Your task to perform on an android device: toggle translation in the chrome app Image 0: 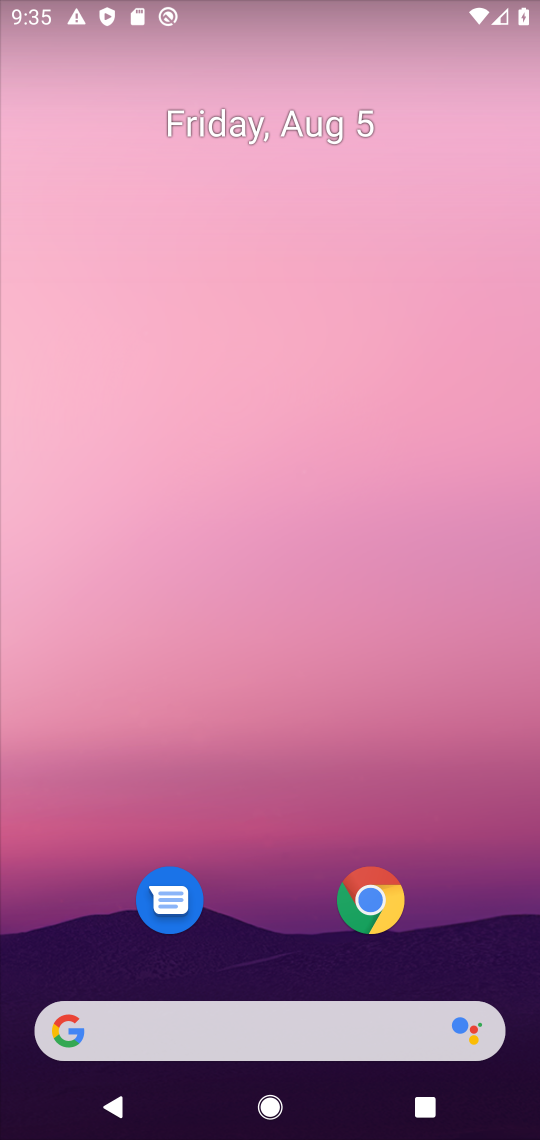
Step 0: drag from (439, 571) to (307, 157)
Your task to perform on an android device: toggle translation in the chrome app Image 1: 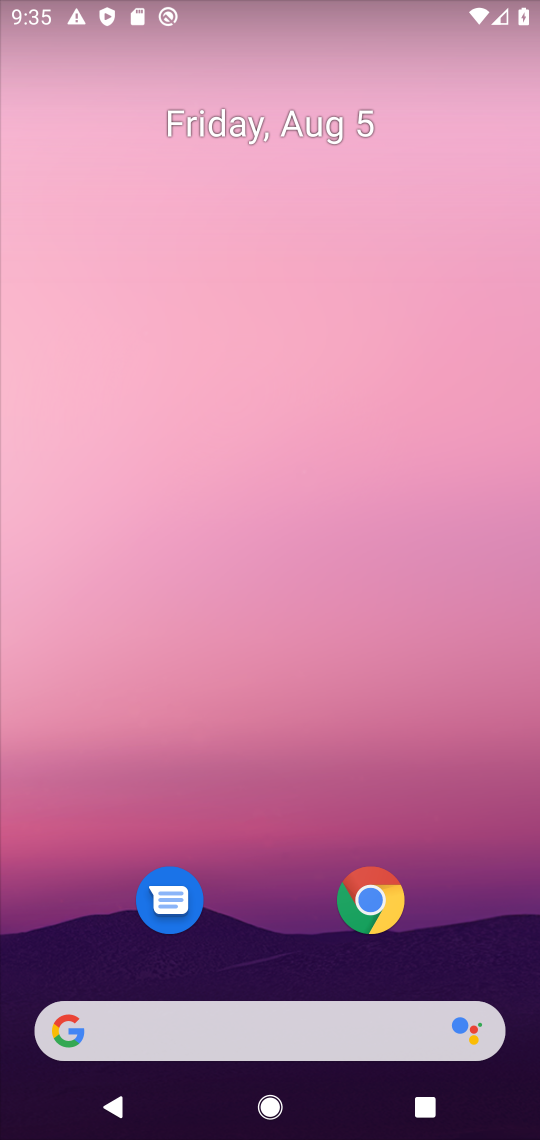
Step 1: drag from (499, 969) to (262, 154)
Your task to perform on an android device: toggle translation in the chrome app Image 2: 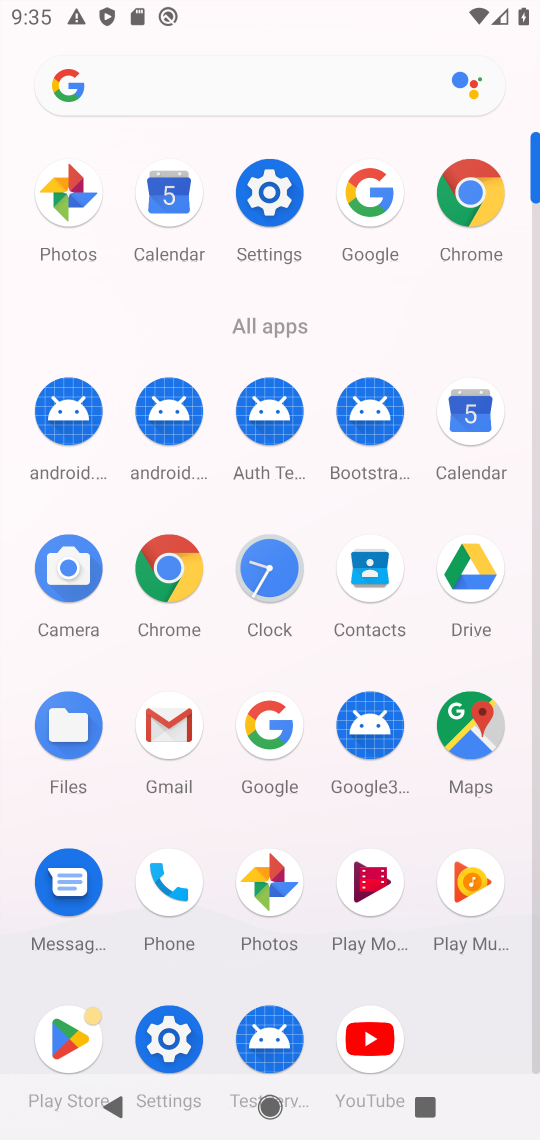
Step 2: click (487, 212)
Your task to perform on an android device: toggle translation in the chrome app Image 3: 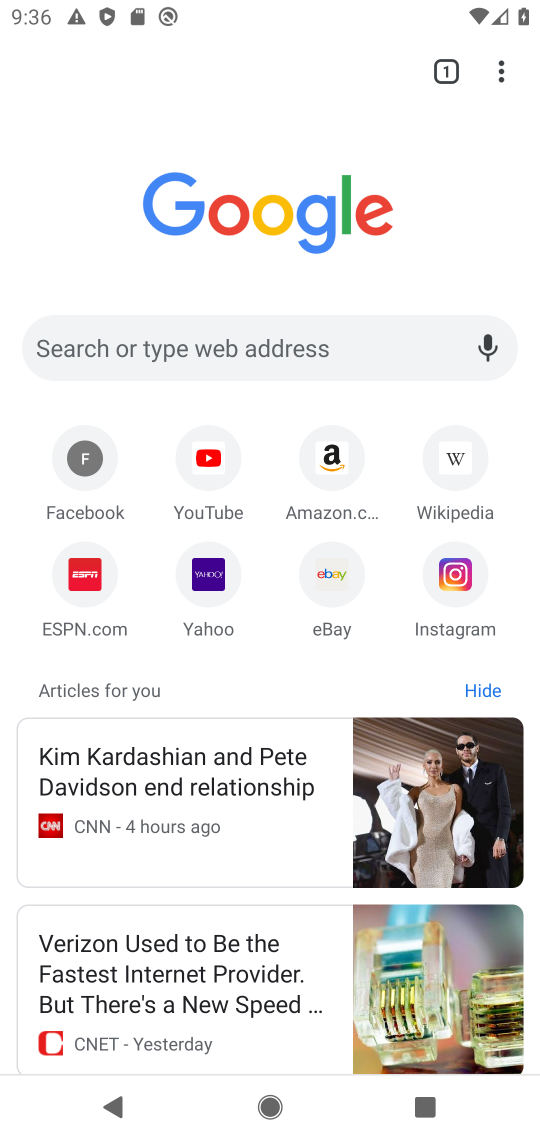
Step 3: click (513, 77)
Your task to perform on an android device: toggle translation in the chrome app Image 4: 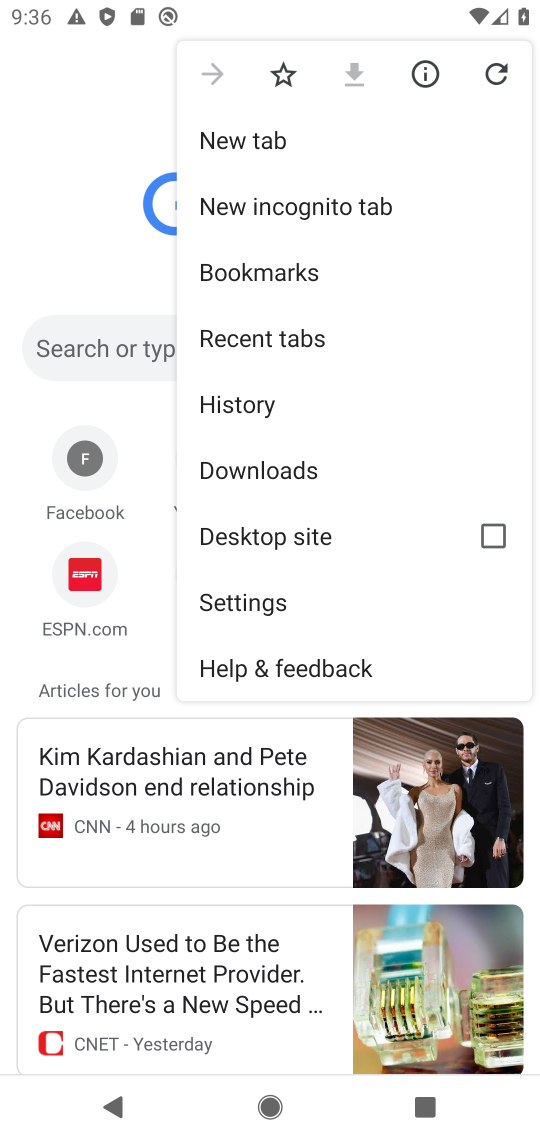
Step 4: click (282, 606)
Your task to perform on an android device: toggle translation in the chrome app Image 5: 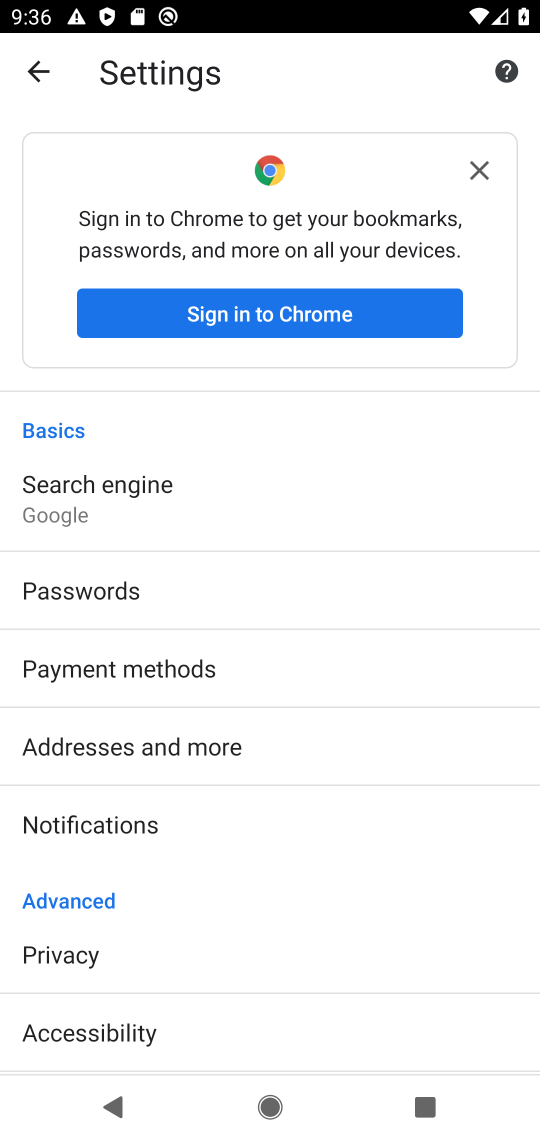
Step 5: drag from (245, 737) to (230, 377)
Your task to perform on an android device: toggle translation in the chrome app Image 6: 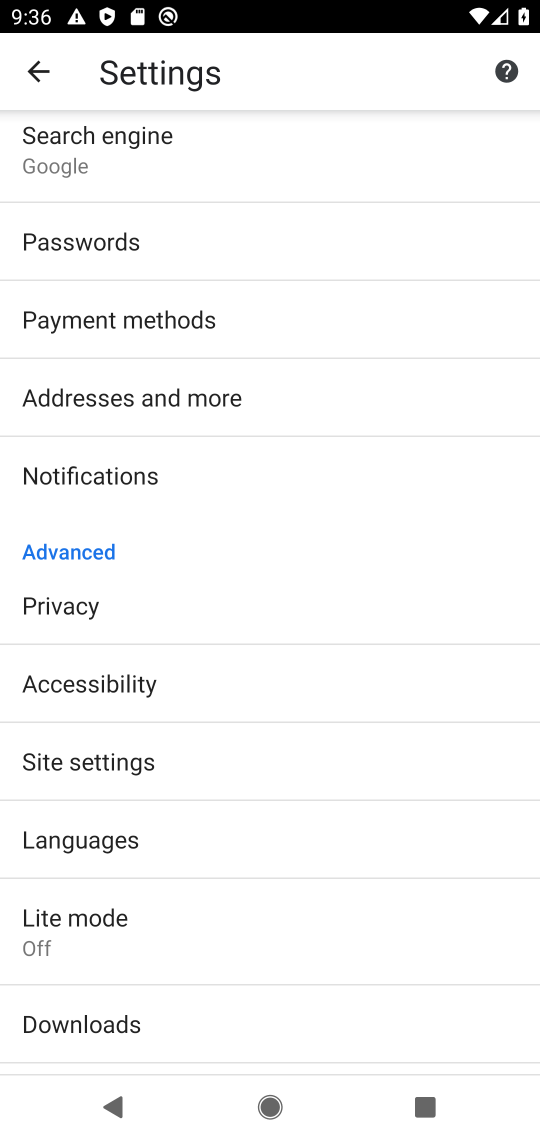
Step 6: click (166, 865)
Your task to perform on an android device: toggle translation in the chrome app Image 7: 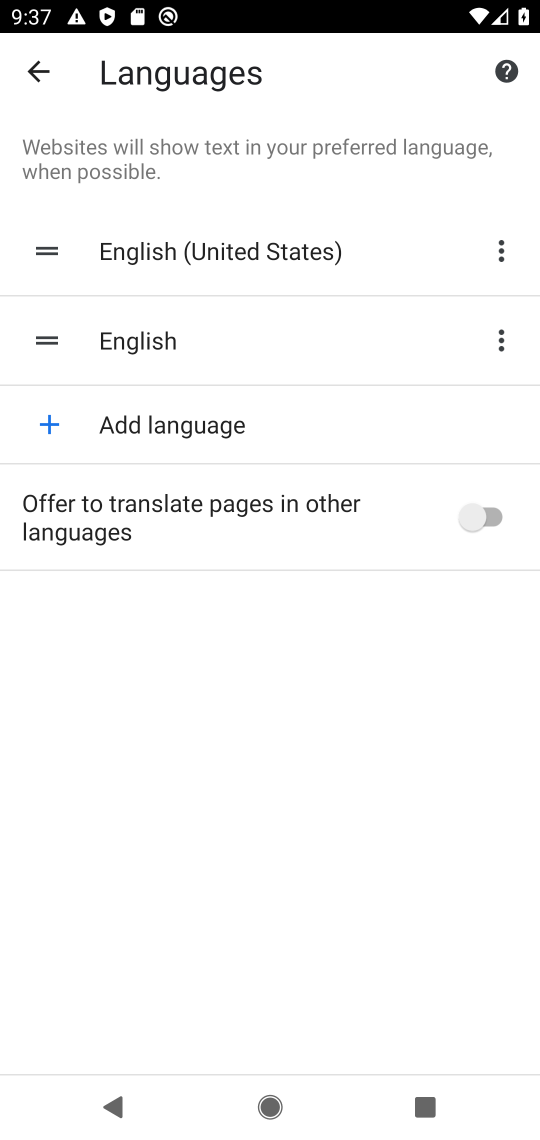
Step 7: click (499, 535)
Your task to perform on an android device: toggle translation in the chrome app Image 8: 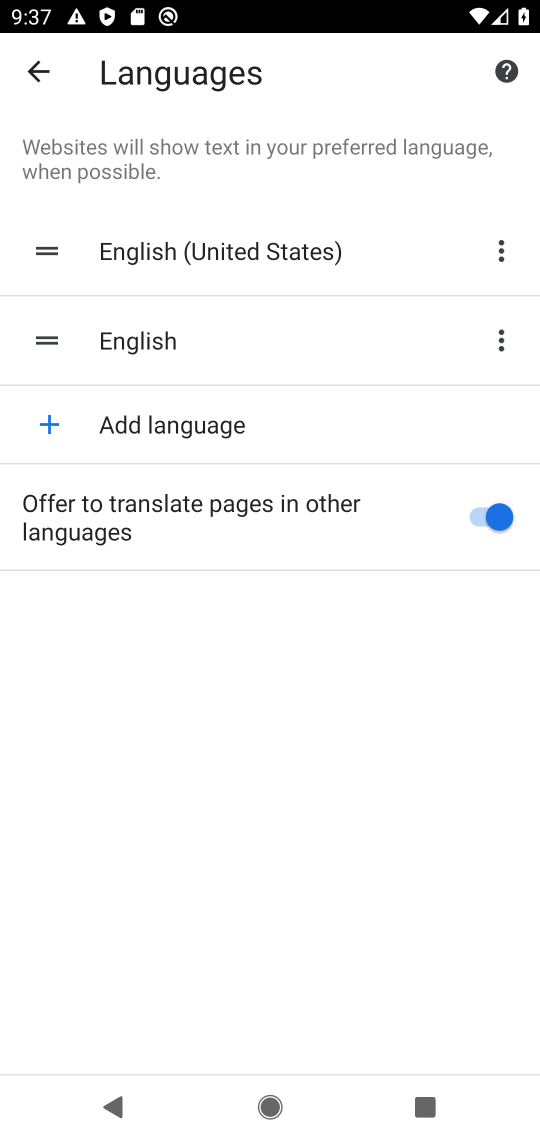
Step 8: task complete